Your task to perform on an android device: turn off location Image 0: 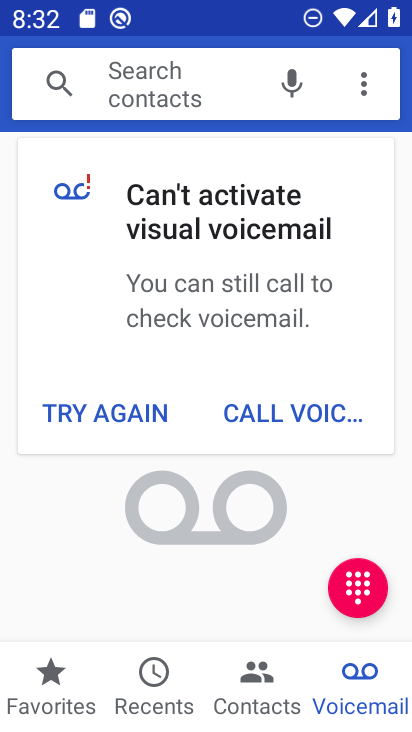
Step 0: press home button
Your task to perform on an android device: turn off location Image 1: 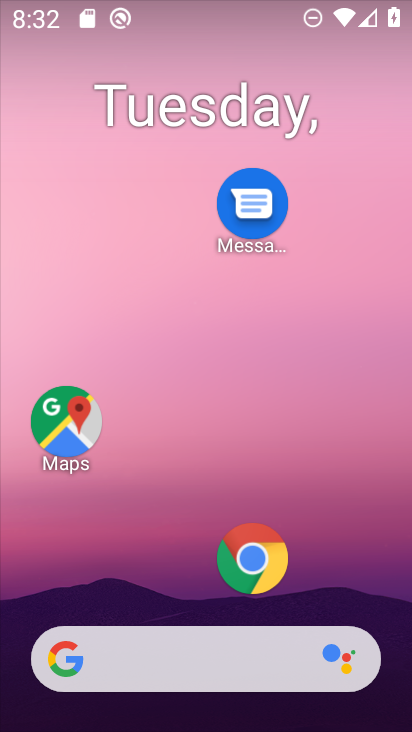
Step 1: drag from (168, 606) to (229, 146)
Your task to perform on an android device: turn off location Image 2: 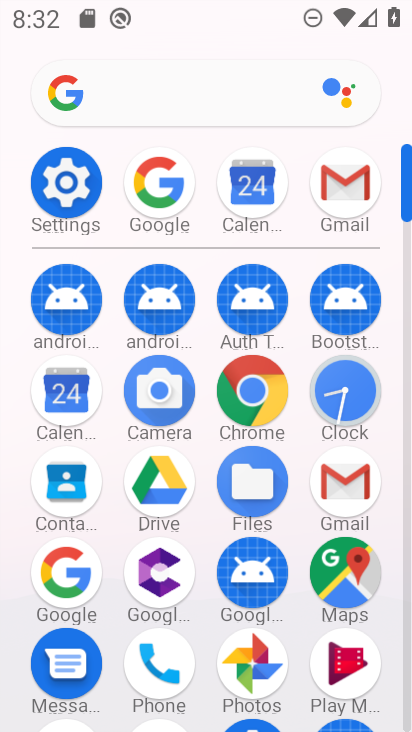
Step 2: click (46, 210)
Your task to perform on an android device: turn off location Image 3: 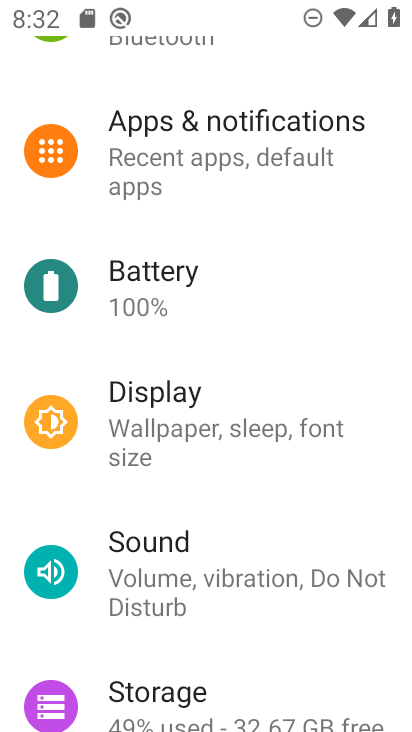
Step 3: drag from (253, 616) to (261, 222)
Your task to perform on an android device: turn off location Image 4: 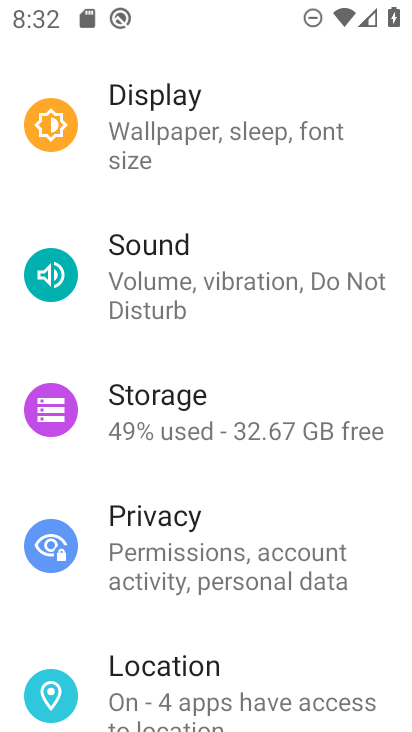
Step 4: drag from (238, 565) to (269, 217)
Your task to perform on an android device: turn off location Image 5: 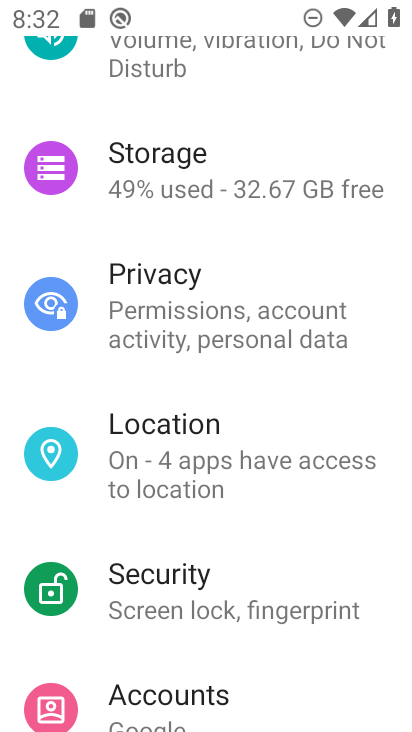
Step 5: click (227, 437)
Your task to perform on an android device: turn off location Image 6: 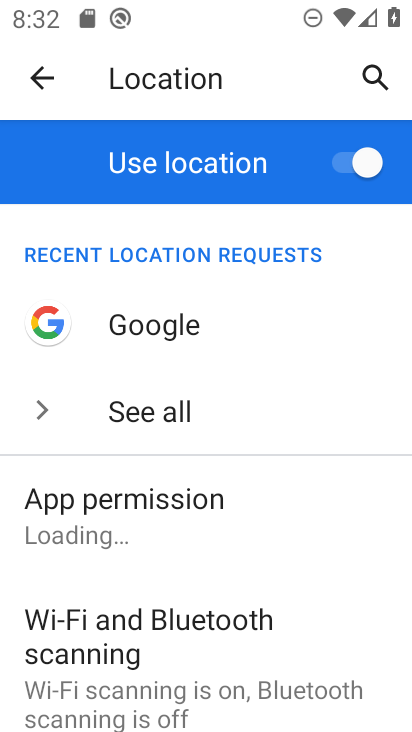
Step 6: click (342, 152)
Your task to perform on an android device: turn off location Image 7: 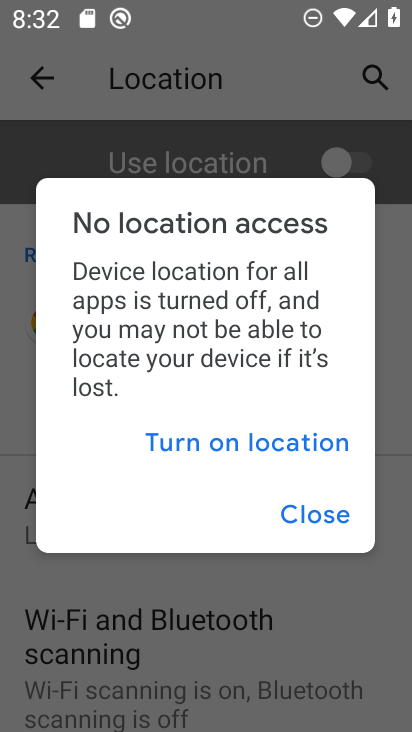
Step 7: task complete